Your task to perform on an android device: Go to CNN.com Image 0: 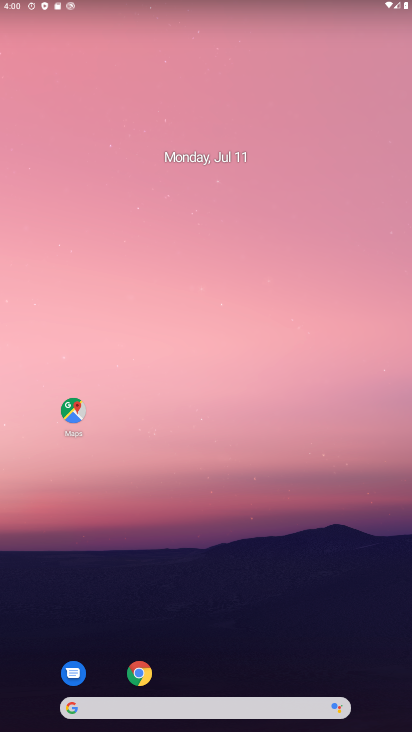
Step 0: click (141, 676)
Your task to perform on an android device: Go to CNN.com Image 1: 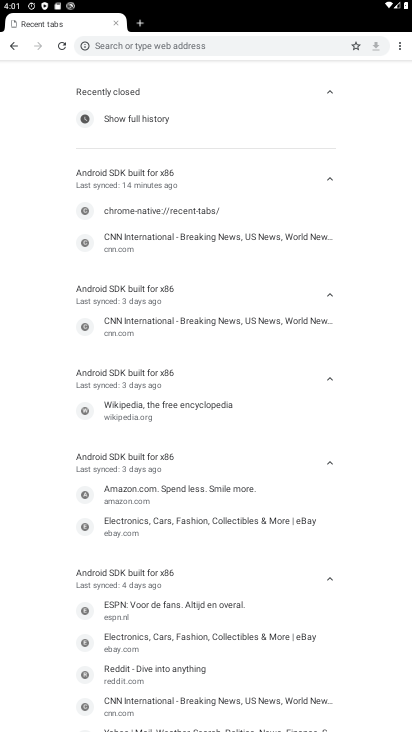
Step 1: click (294, 40)
Your task to perform on an android device: Go to CNN.com Image 2: 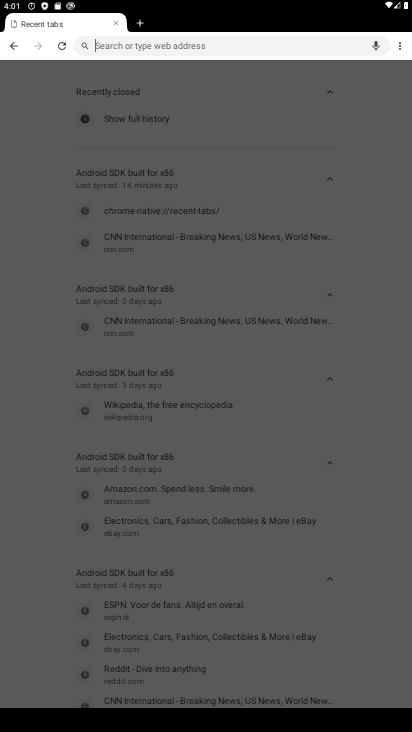
Step 2: type " CNN.com"
Your task to perform on an android device: Go to CNN.com Image 3: 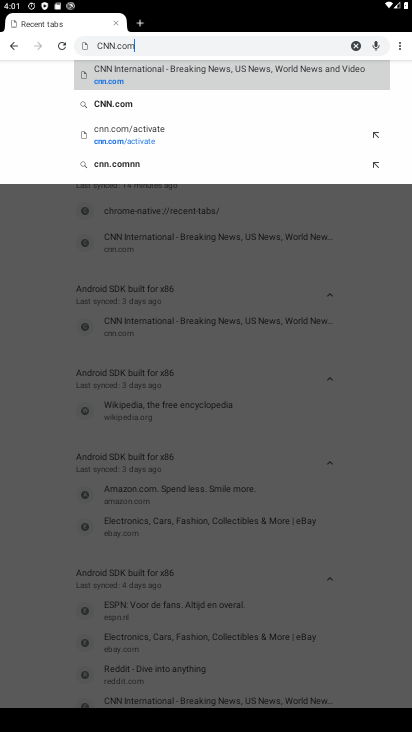
Step 3: click (110, 102)
Your task to perform on an android device: Go to CNN.com Image 4: 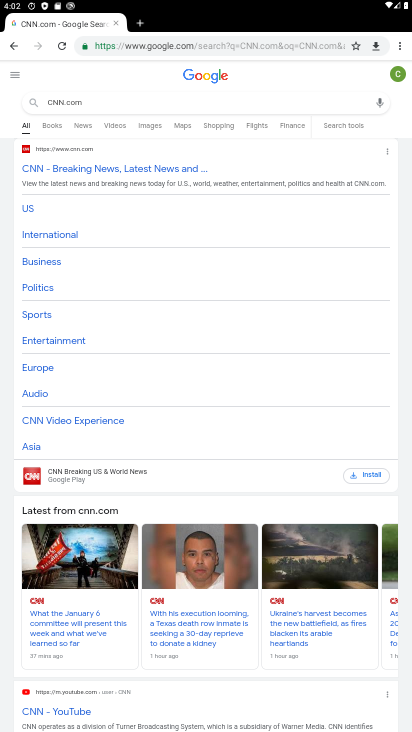
Step 4: click (34, 168)
Your task to perform on an android device: Go to CNN.com Image 5: 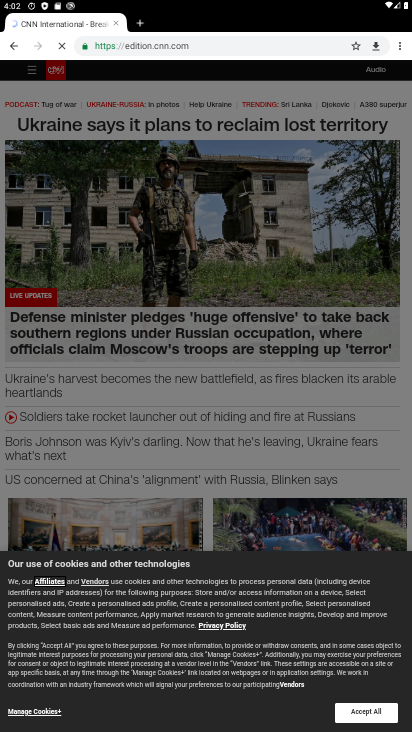
Step 5: task complete